Your task to perform on an android device: install app "Google Play Games" Image 0: 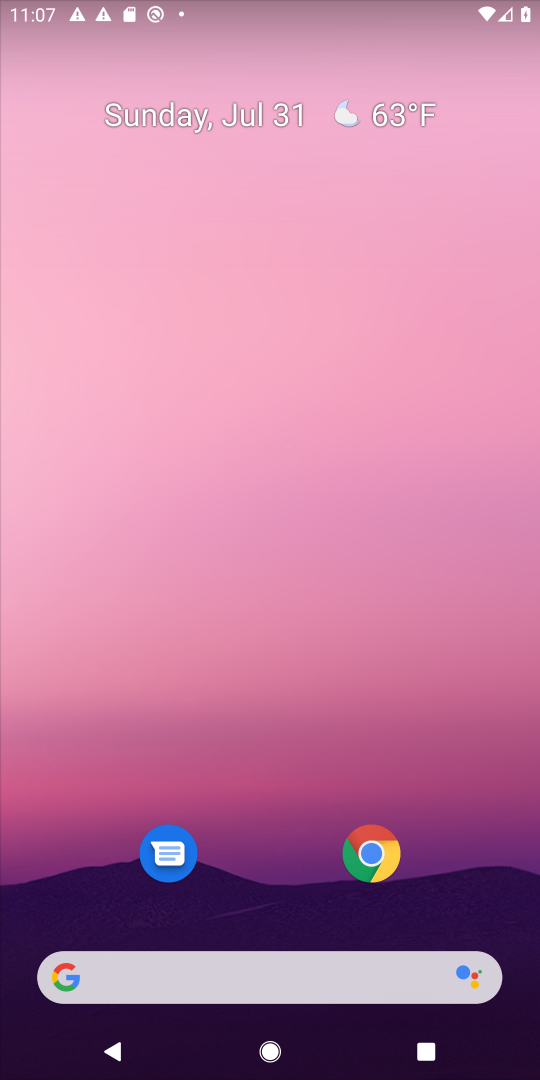
Step 0: drag from (309, 1062) to (285, 376)
Your task to perform on an android device: install app "Google Play Games" Image 1: 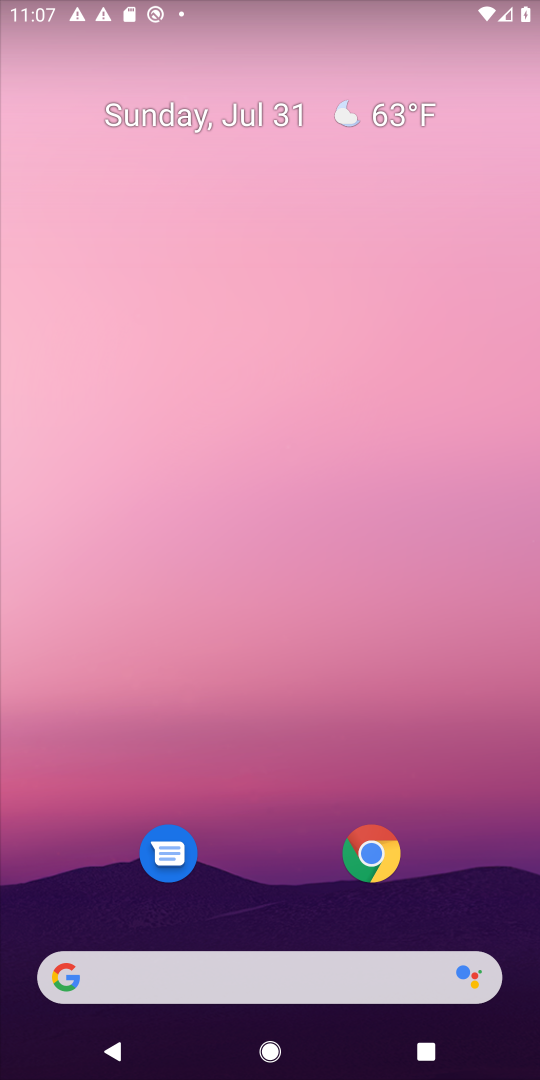
Step 1: drag from (302, 1045) to (231, 126)
Your task to perform on an android device: install app "Google Play Games" Image 2: 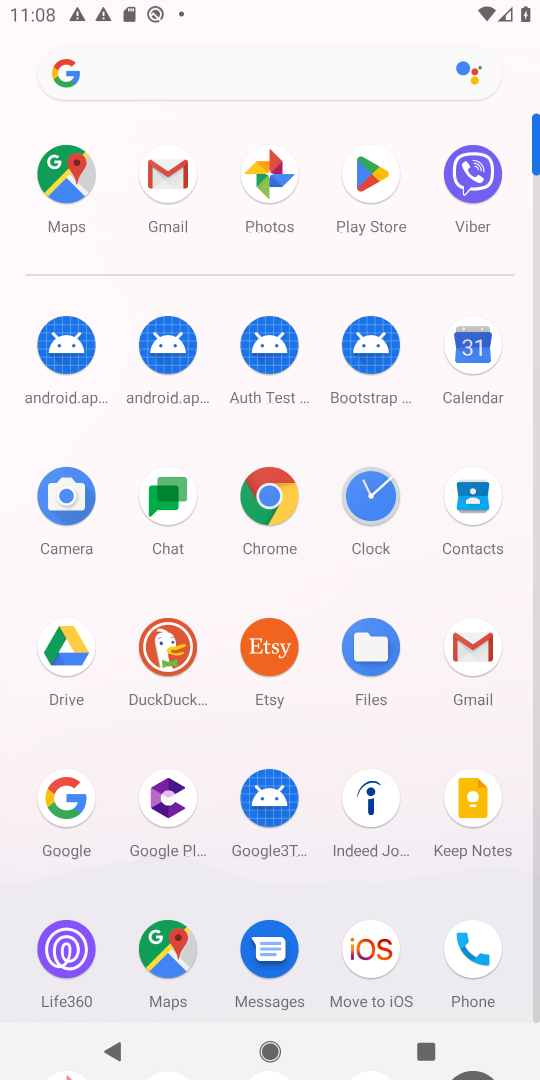
Step 2: click (379, 182)
Your task to perform on an android device: install app "Google Play Games" Image 3: 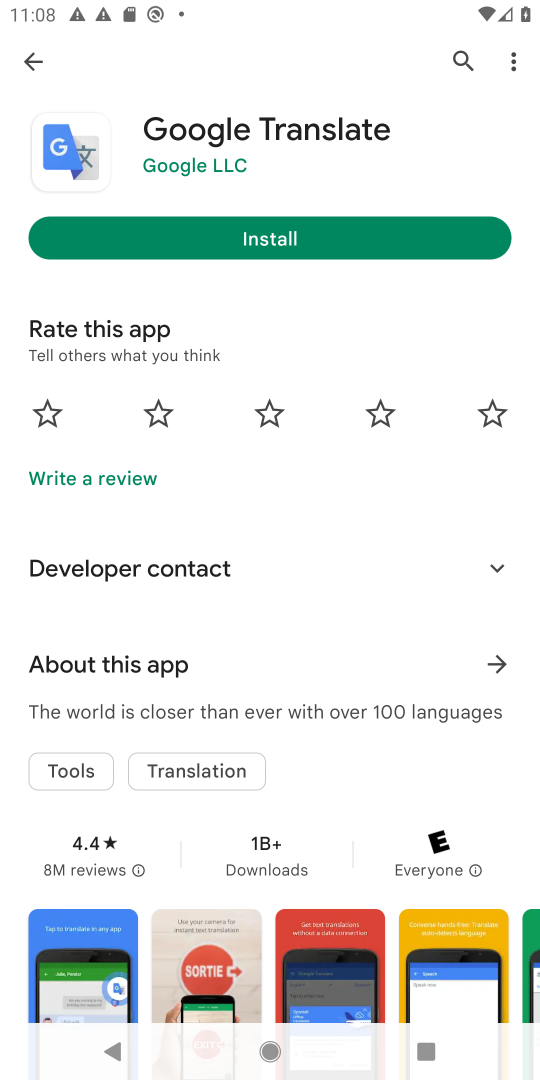
Step 3: click (466, 55)
Your task to perform on an android device: install app "Google Play Games" Image 4: 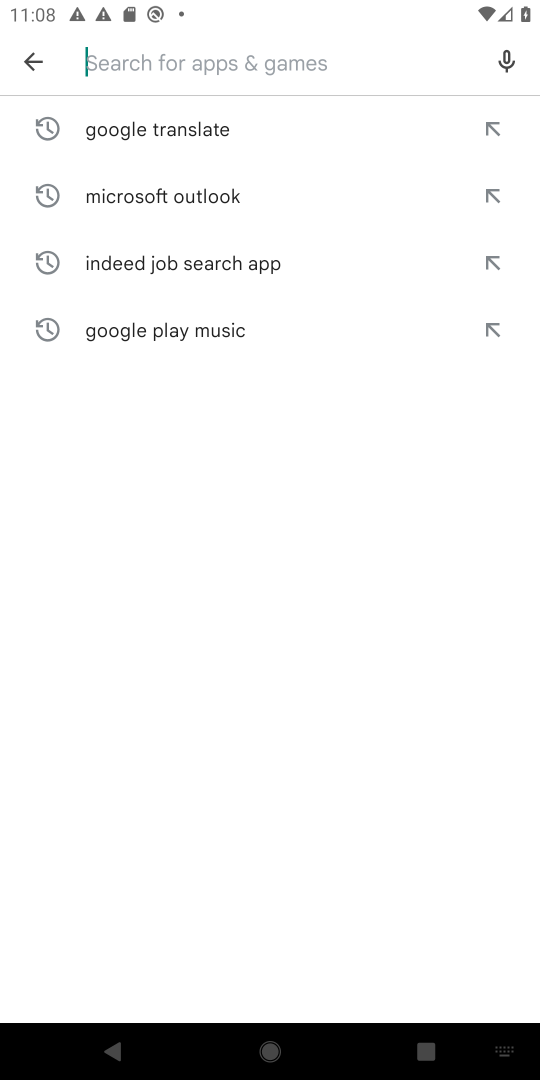
Step 4: type "Google Play Games"
Your task to perform on an android device: install app "Google Play Games" Image 5: 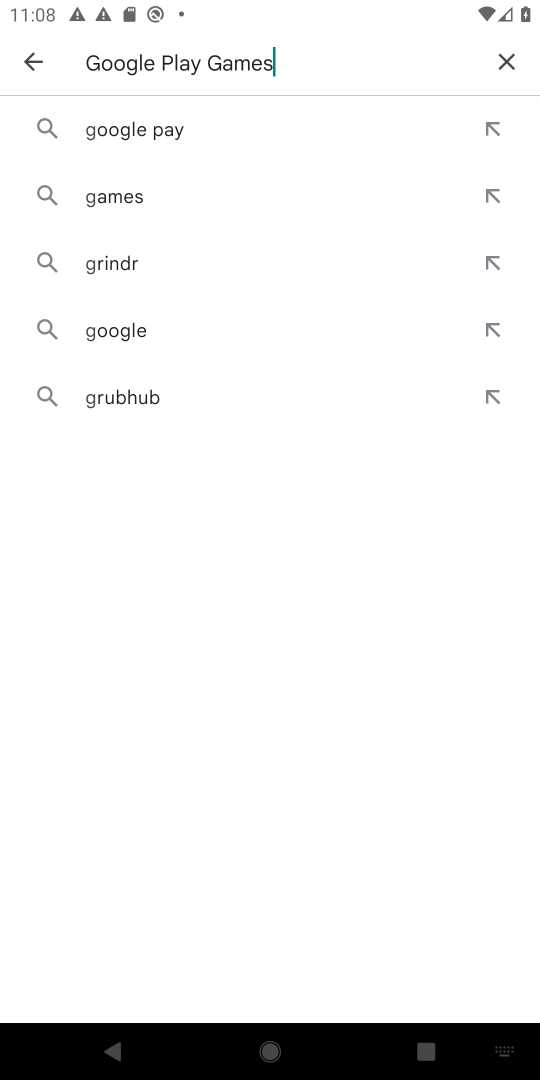
Step 5: type ""
Your task to perform on an android device: install app "Google Play Games" Image 6: 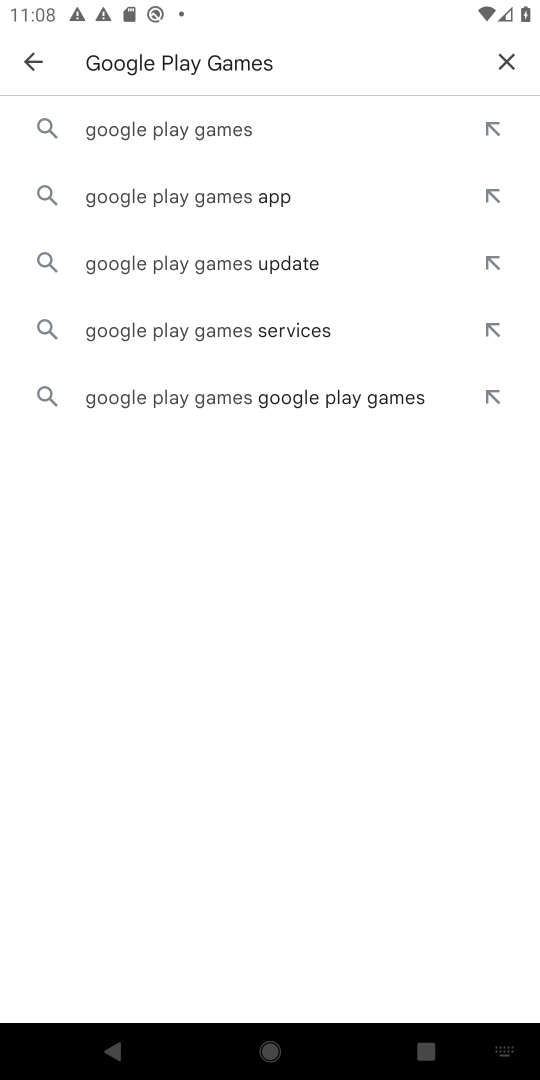
Step 6: click (217, 136)
Your task to perform on an android device: install app "Google Play Games" Image 7: 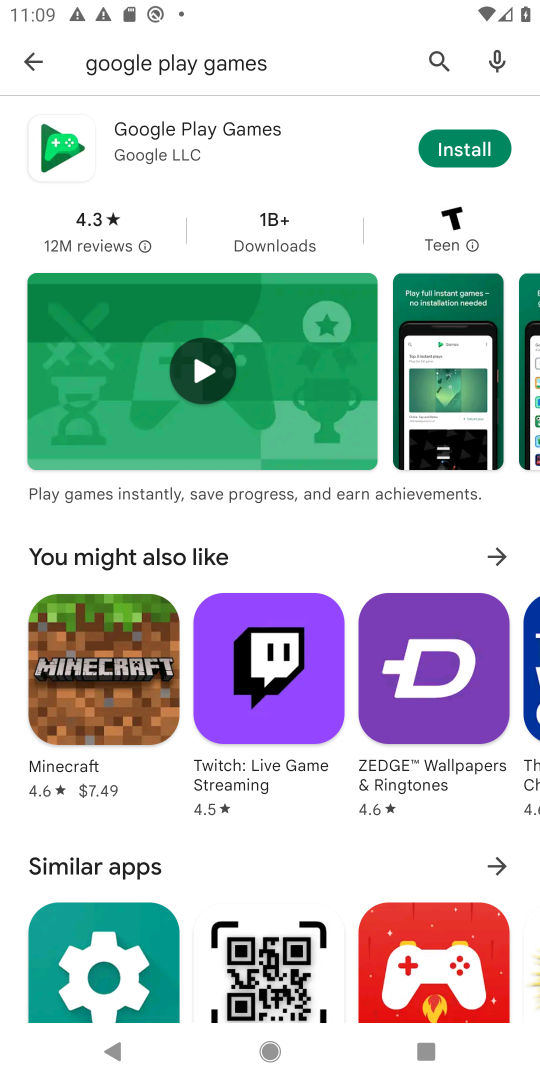
Step 7: click (468, 151)
Your task to perform on an android device: install app "Google Play Games" Image 8: 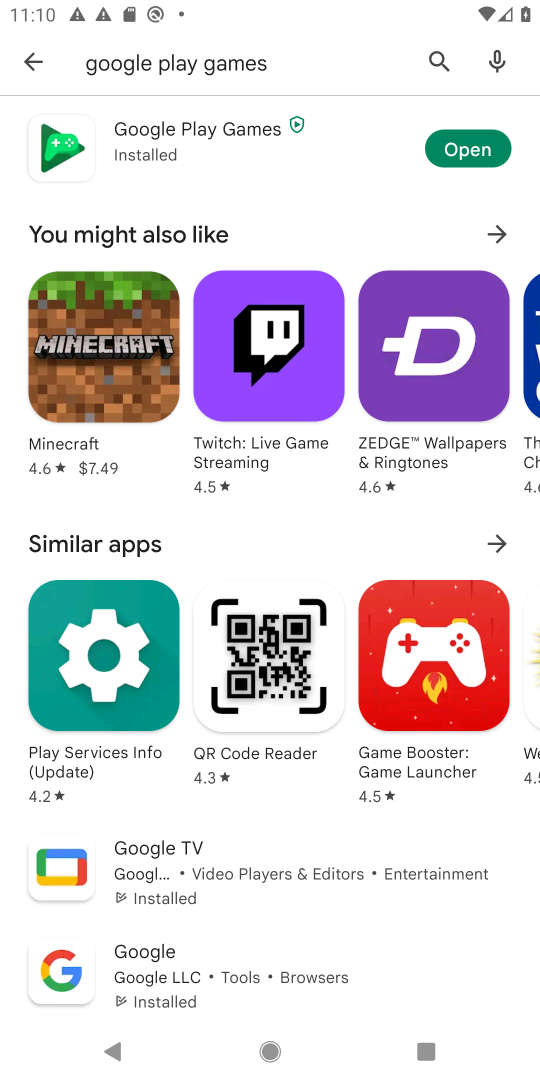
Step 8: task complete